Your task to perform on an android device: turn notification dots off Image 0: 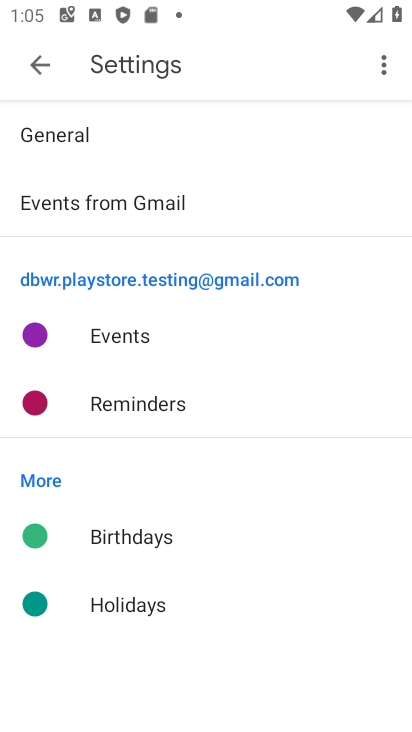
Step 0: press home button
Your task to perform on an android device: turn notification dots off Image 1: 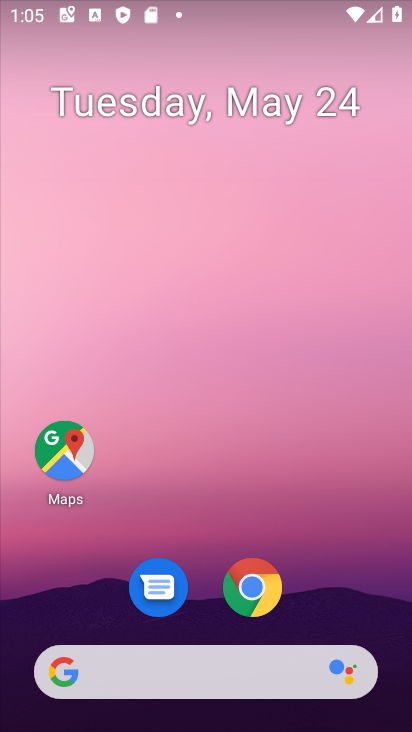
Step 1: drag from (263, 715) to (212, 106)
Your task to perform on an android device: turn notification dots off Image 2: 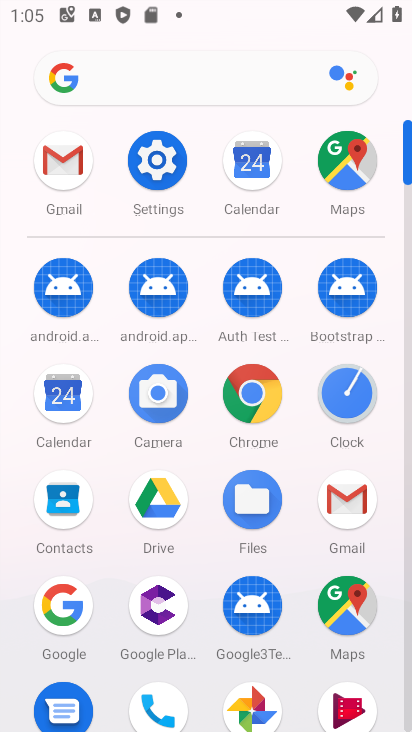
Step 2: click (158, 172)
Your task to perform on an android device: turn notification dots off Image 3: 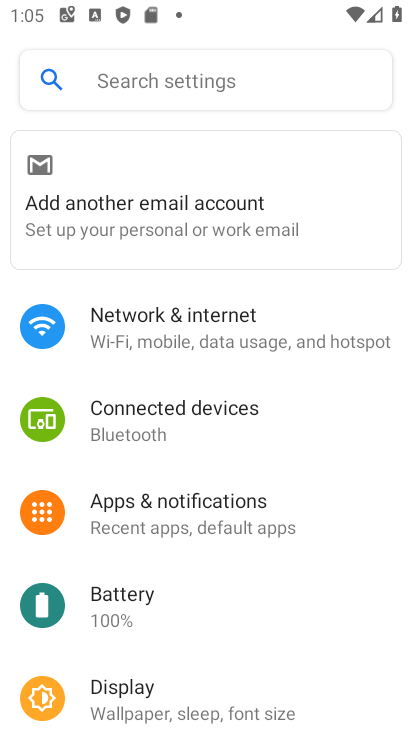
Step 3: click (310, 499)
Your task to perform on an android device: turn notification dots off Image 4: 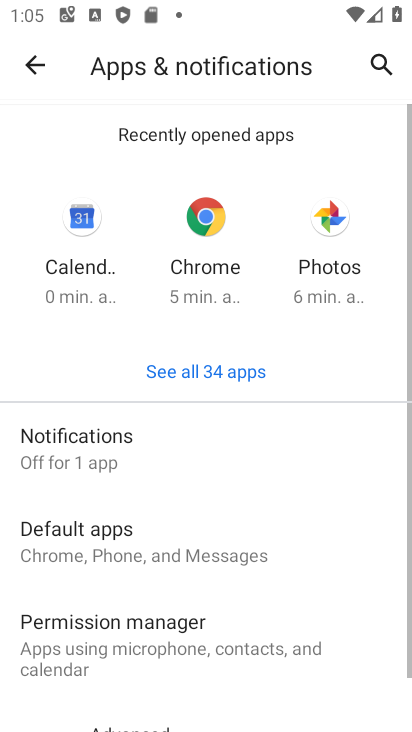
Step 4: click (165, 442)
Your task to perform on an android device: turn notification dots off Image 5: 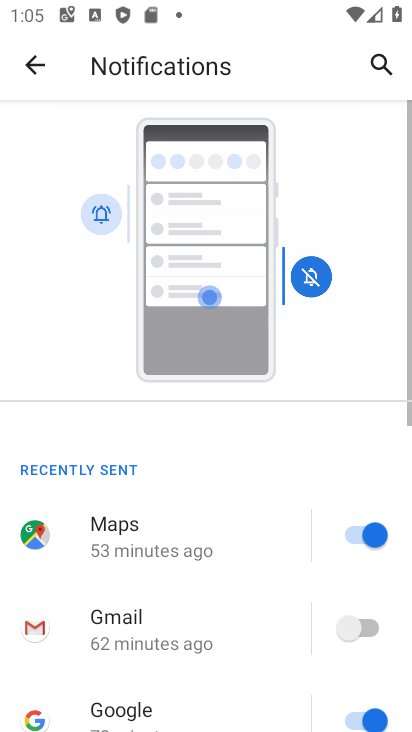
Step 5: drag from (346, 657) to (264, 216)
Your task to perform on an android device: turn notification dots off Image 6: 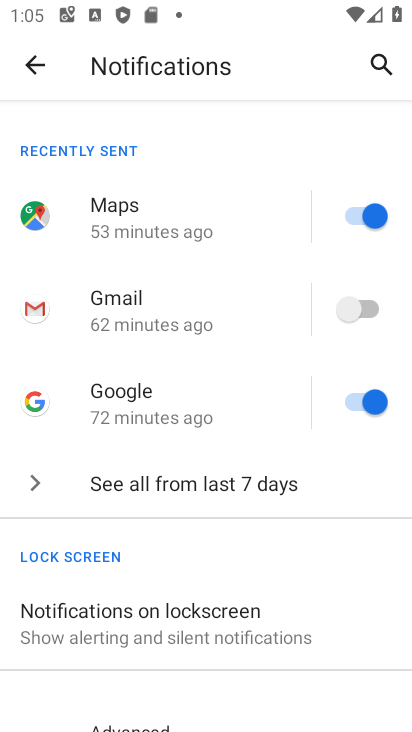
Step 6: drag from (293, 656) to (254, 289)
Your task to perform on an android device: turn notification dots off Image 7: 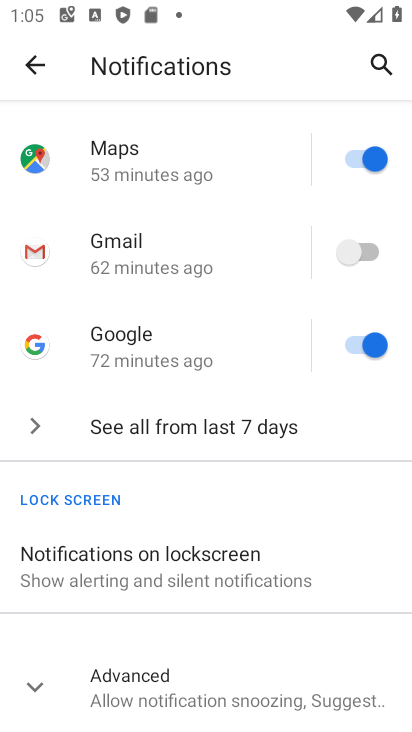
Step 7: click (222, 696)
Your task to perform on an android device: turn notification dots off Image 8: 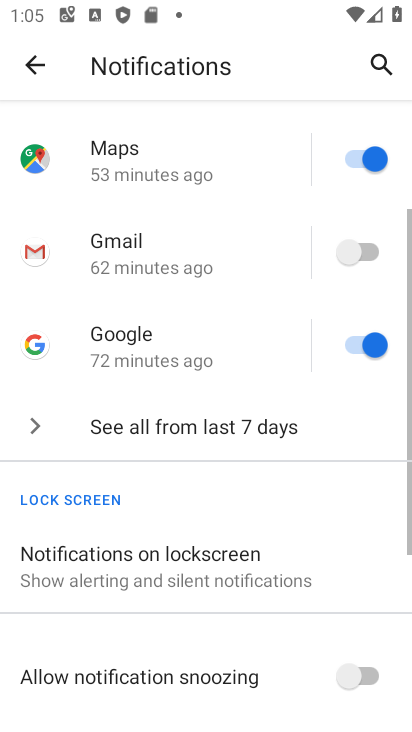
Step 8: drag from (220, 669) to (211, 52)
Your task to perform on an android device: turn notification dots off Image 9: 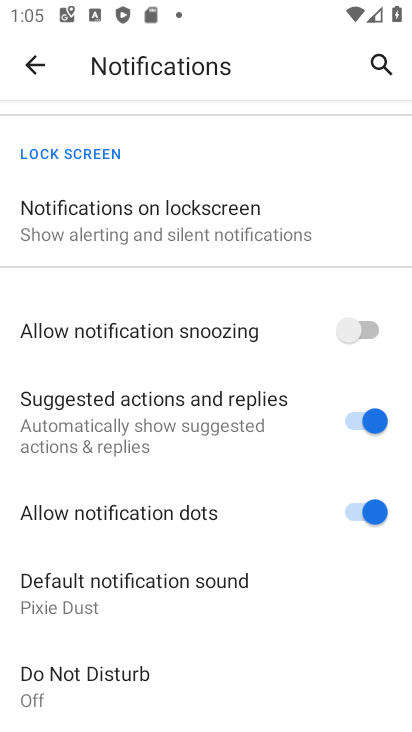
Step 9: drag from (274, 651) to (245, 67)
Your task to perform on an android device: turn notification dots off Image 10: 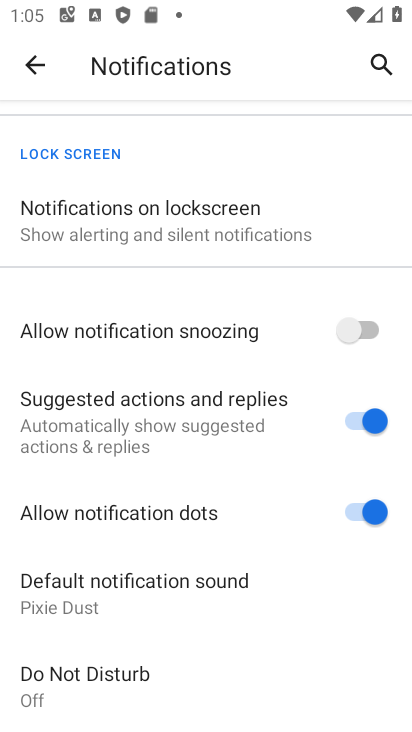
Step 10: click (366, 514)
Your task to perform on an android device: turn notification dots off Image 11: 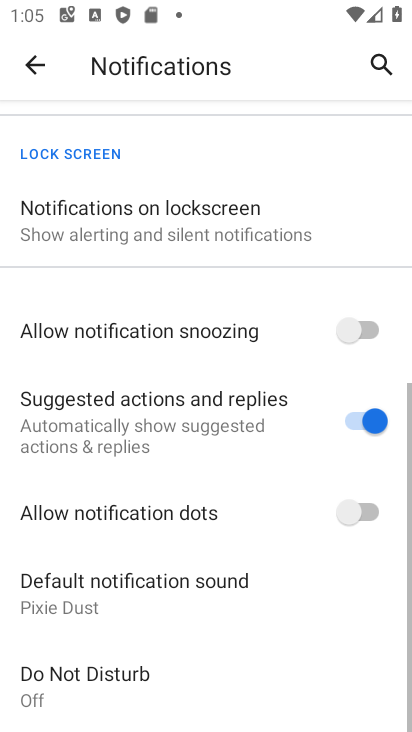
Step 11: task complete